Your task to perform on an android device: change text size in settings app Image 0: 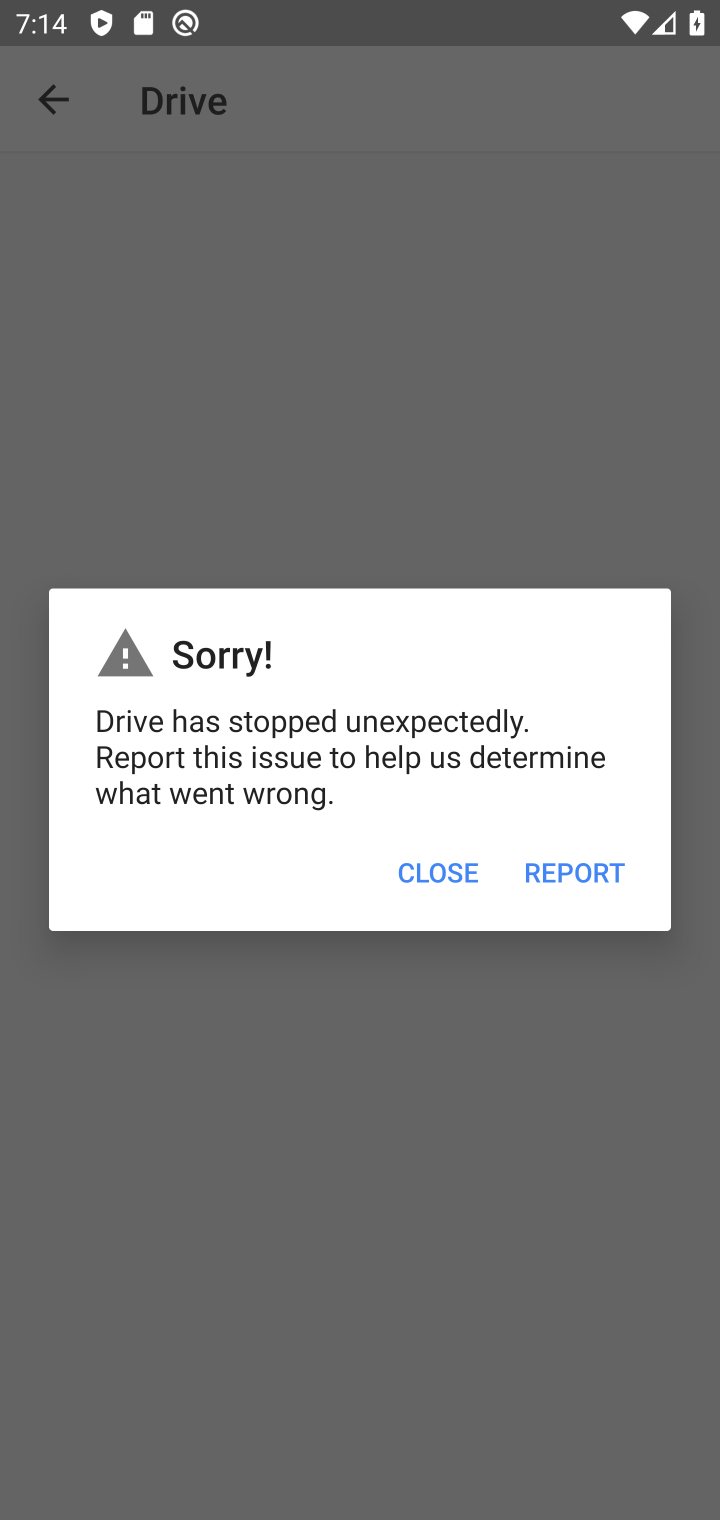
Step 0: press home button
Your task to perform on an android device: change text size in settings app Image 1: 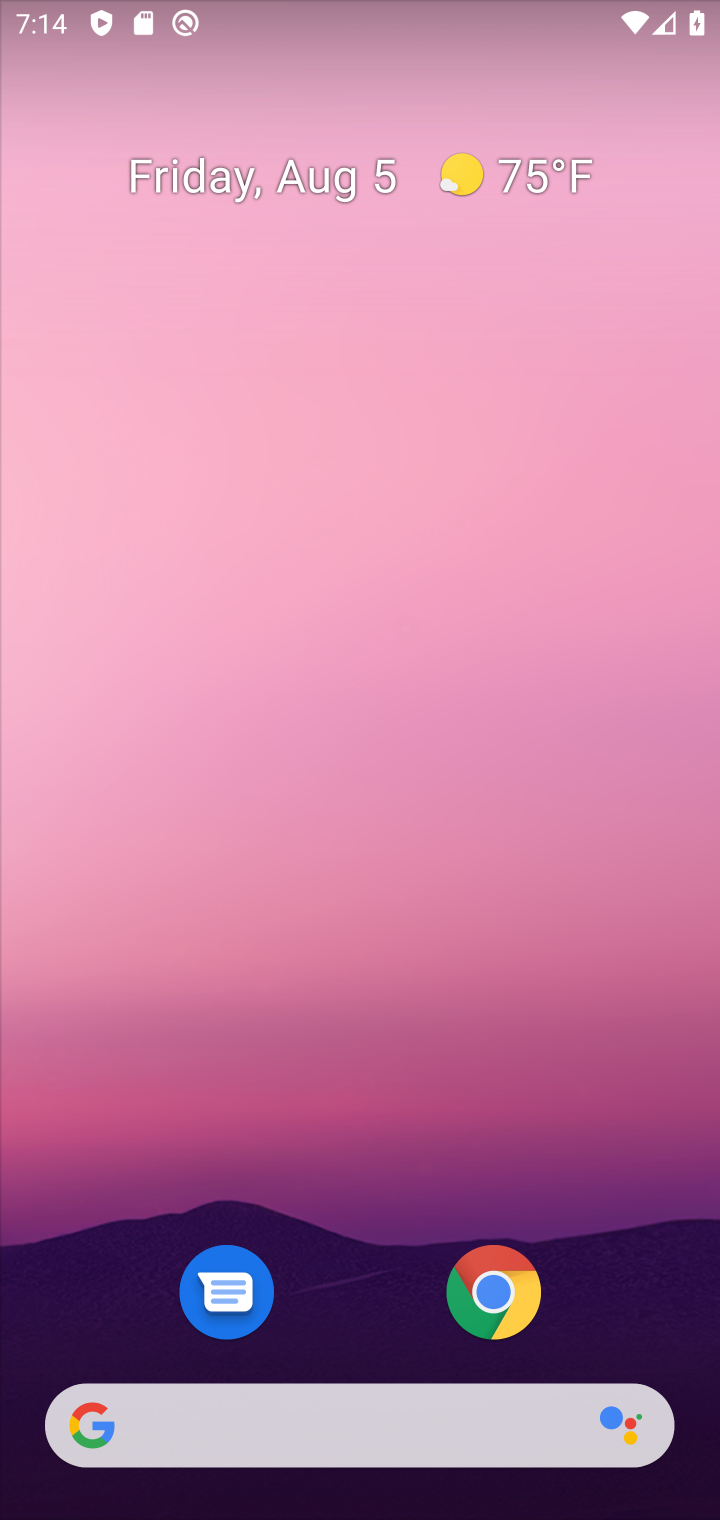
Step 1: drag from (343, 1116) to (377, 2)
Your task to perform on an android device: change text size in settings app Image 2: 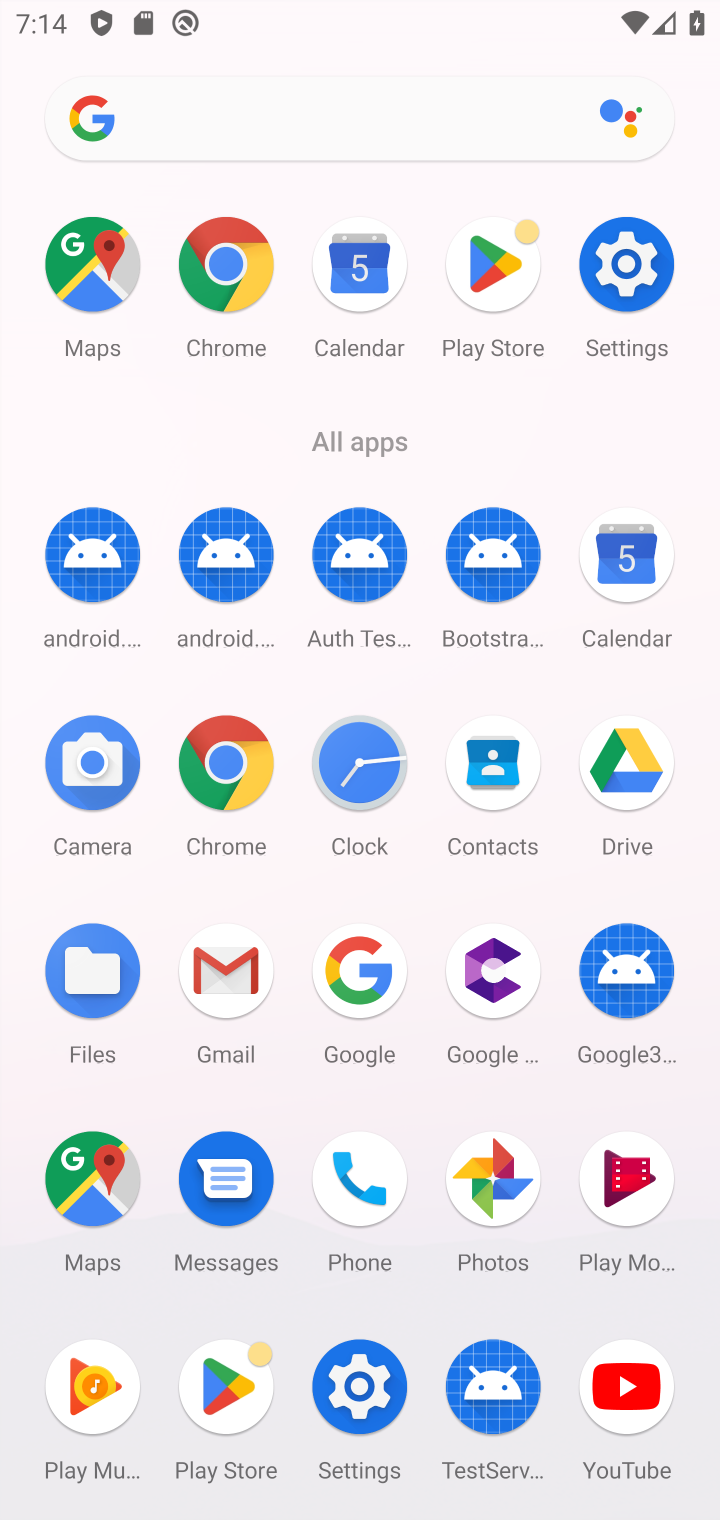
Step 2: click (631, 266)
Your task to perform on an android device: change text size in settings app Image 3: 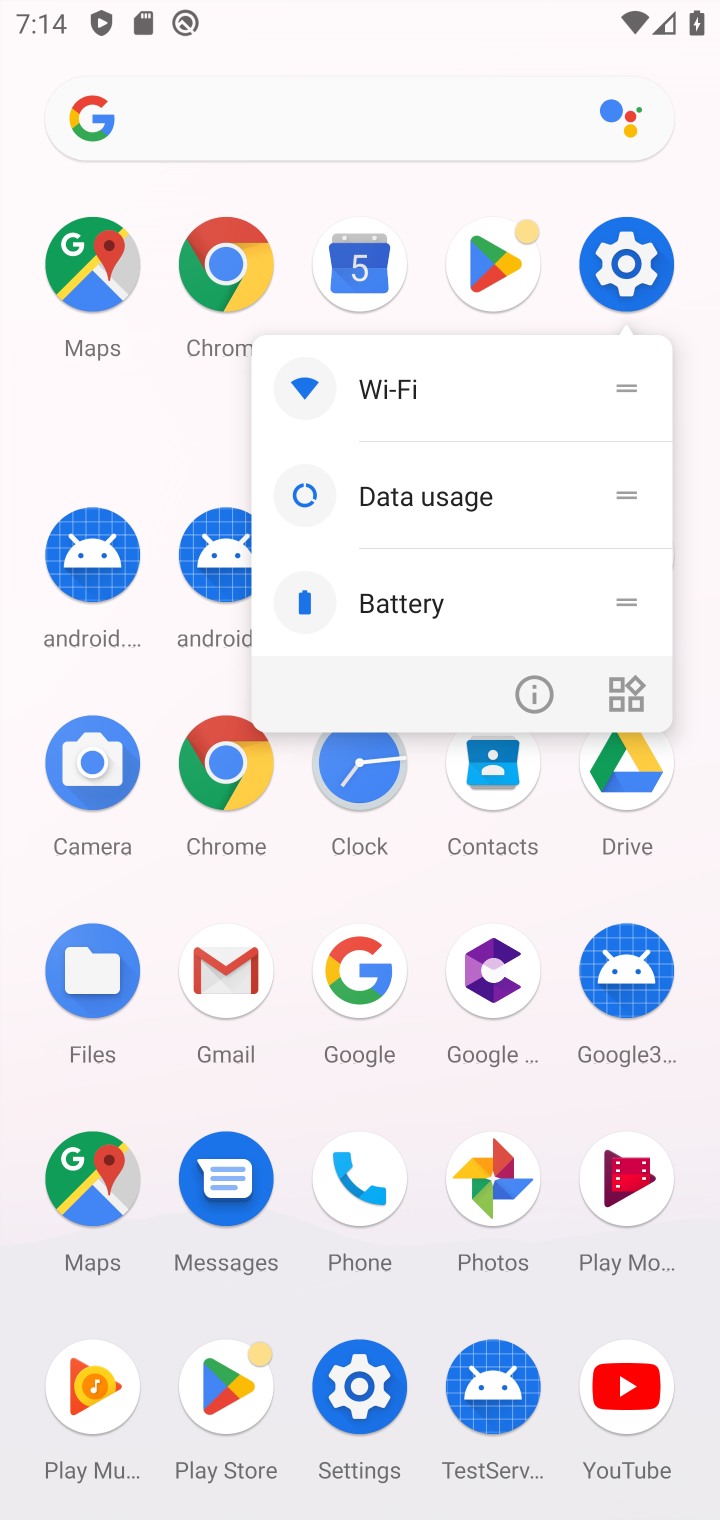
Step 3: click (631, 263)
Your task to perform on an android device: change text size in settings app Image 4: 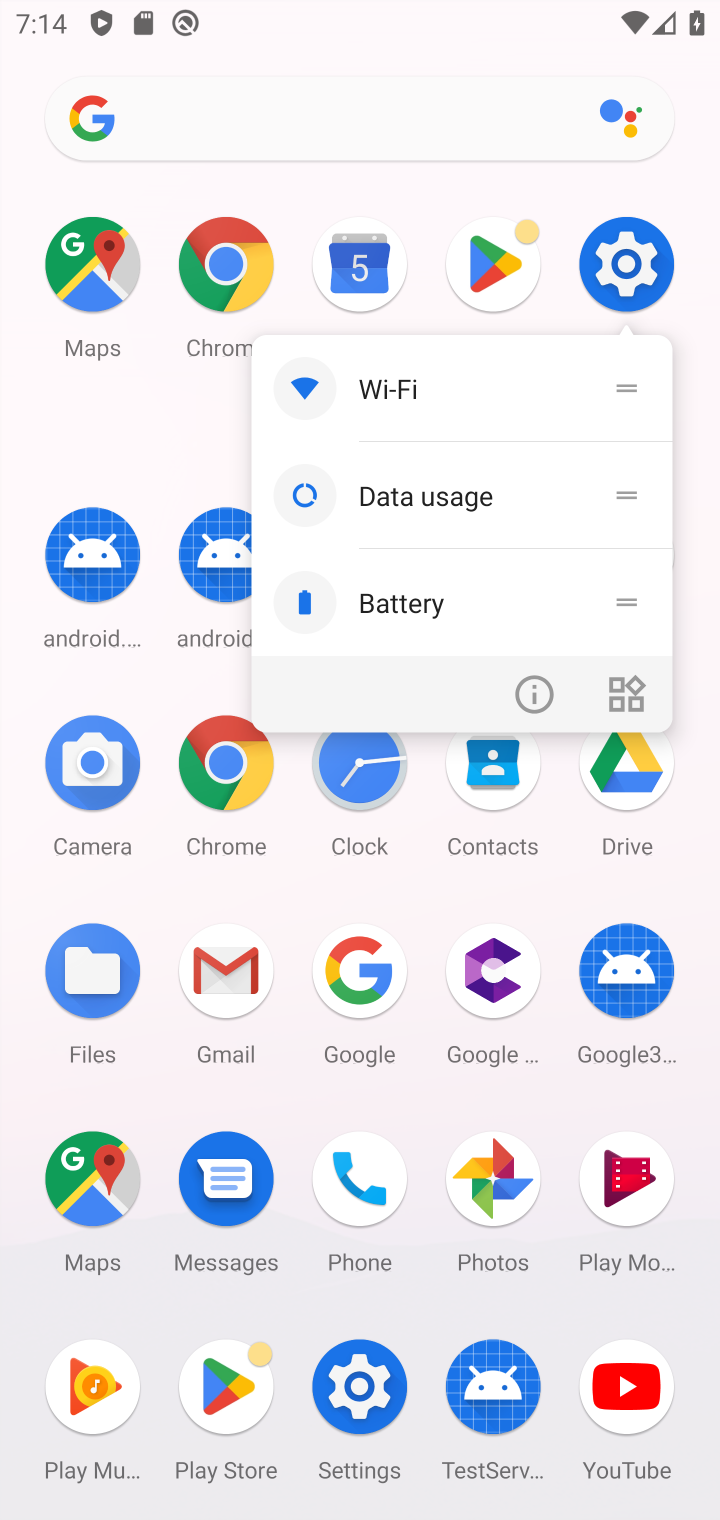
Step 4: click (631, 260)
Your task to perform on an android device: change text size in settings app Image 5: 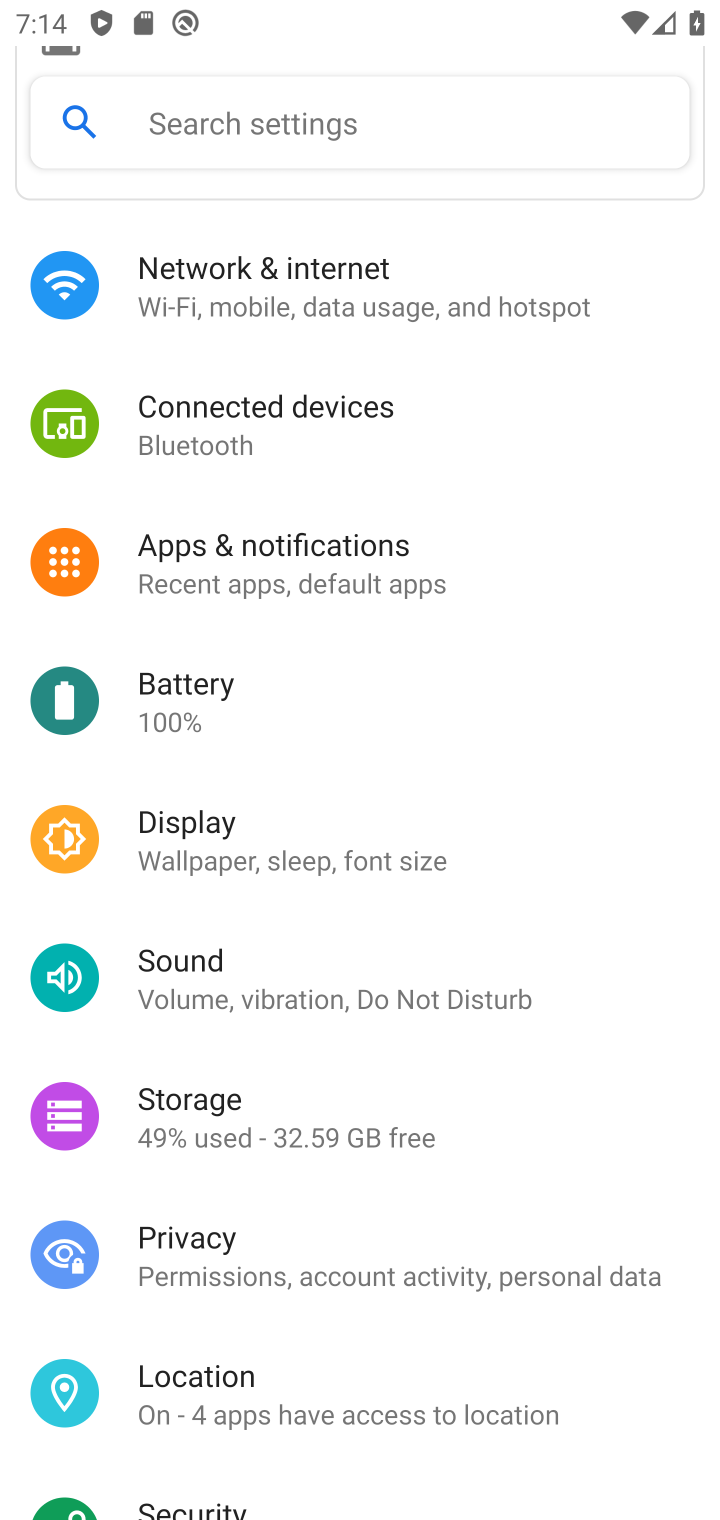
Step 5: click (289, 842)
Your task to perform on an android device: change text size in settings app Image 6: 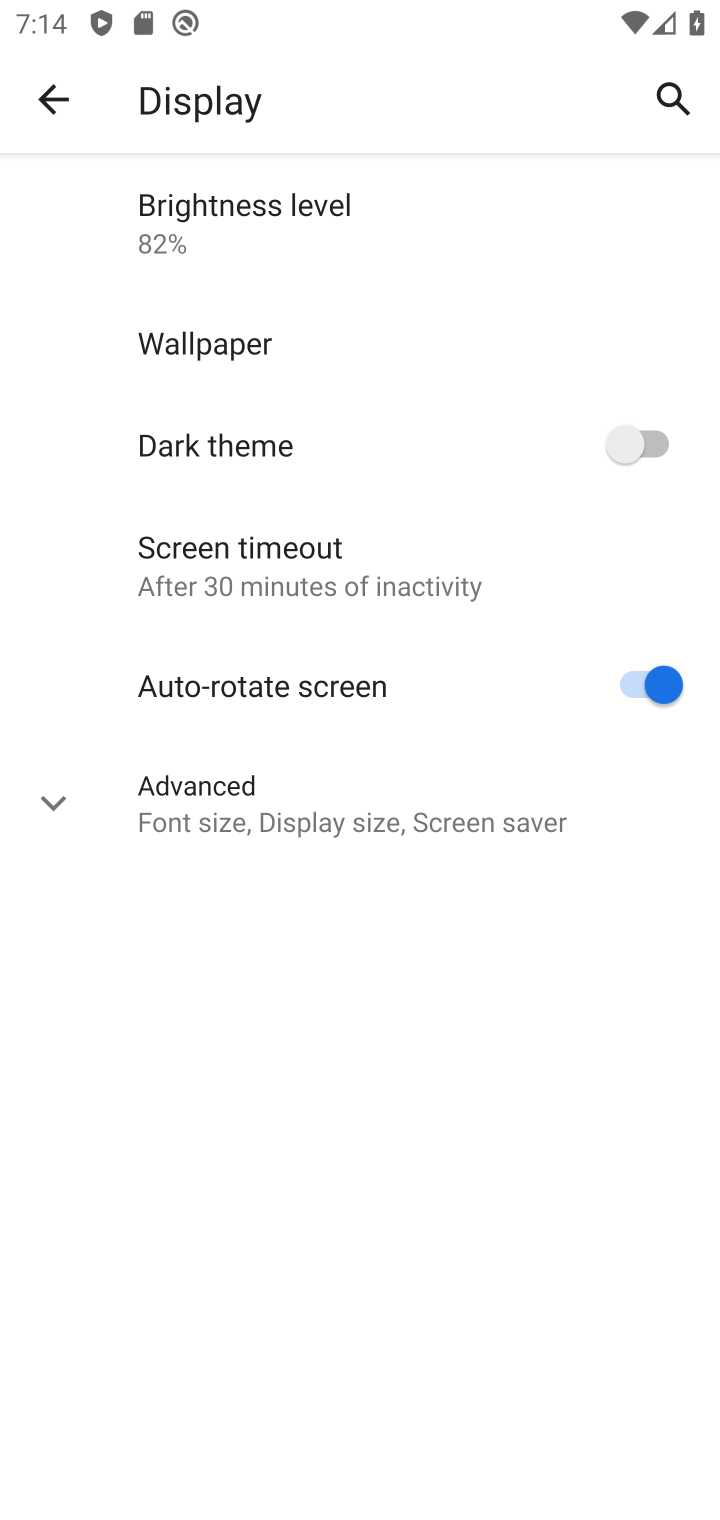
Step 6: click (46, 801)
Your task to perform on an android device: change text size in settings app Image 7: 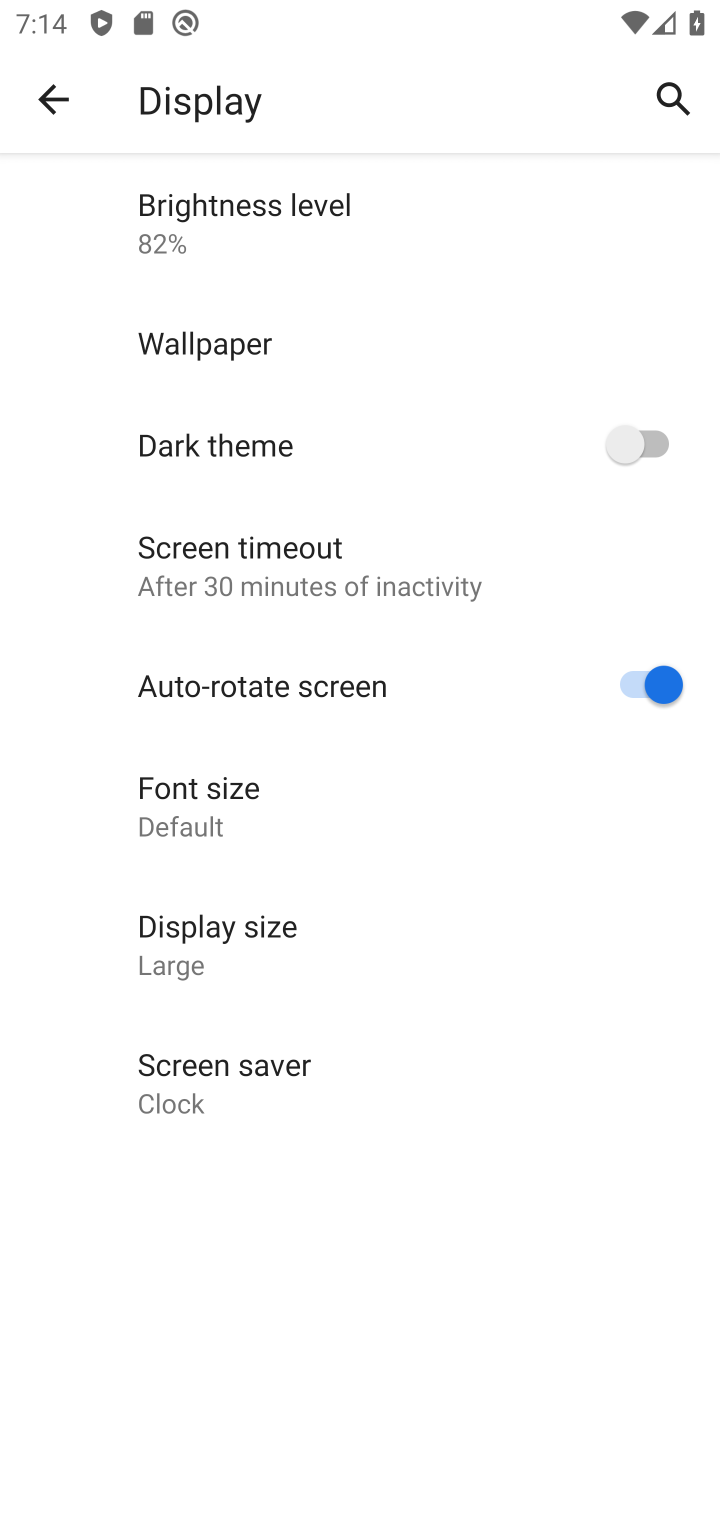
Step 7: click (193, 791)
Your task to perform on an android device: change text size in settings app Image 8: 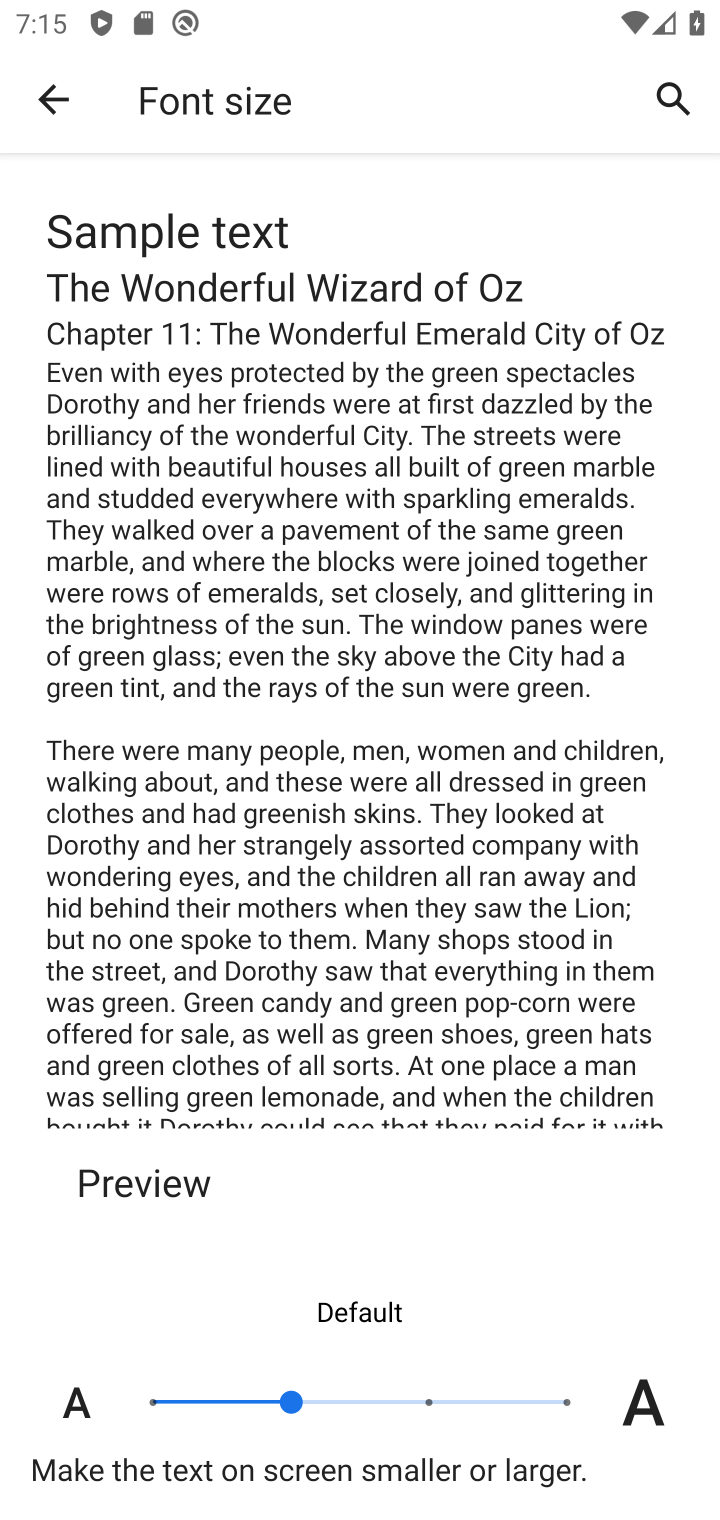
Step 8: click (427, 1394)
Your task to perform on an android device: change text size in settings app Image 9: 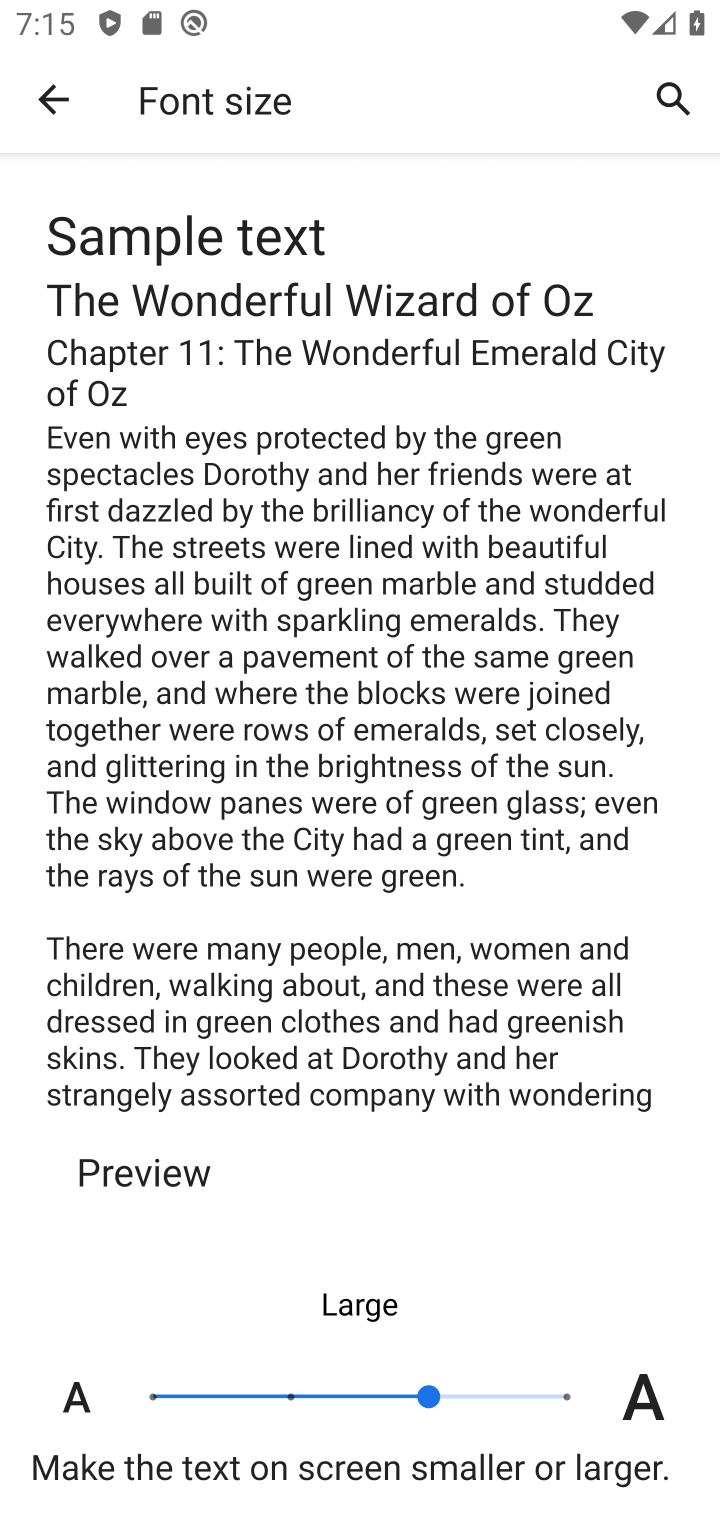
Step 9: click (64, 92)
Your task to perform on an android device: change text size in settings app Image 10: 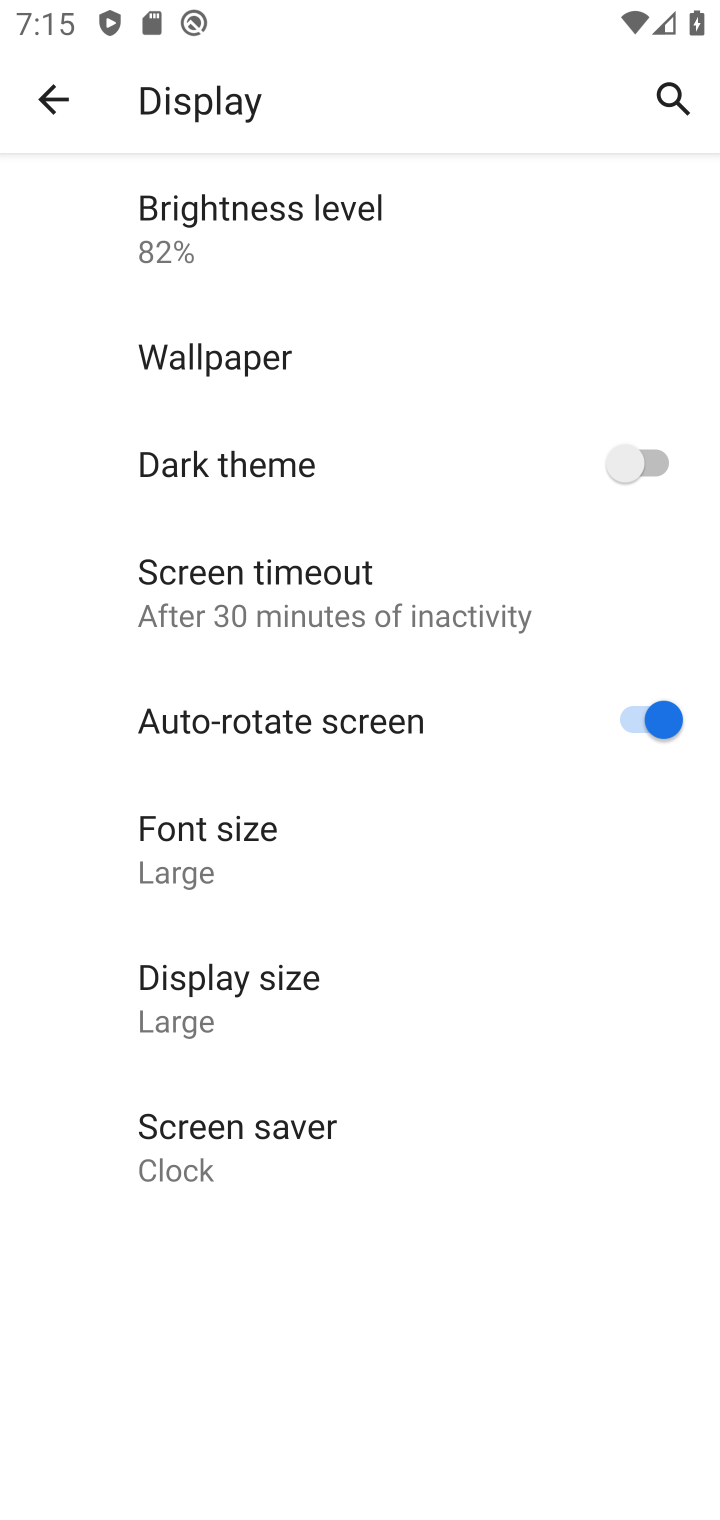
Step 10: task complete